Your task to perform on an android device: toggle priority inbox in the gmail app Image 0: 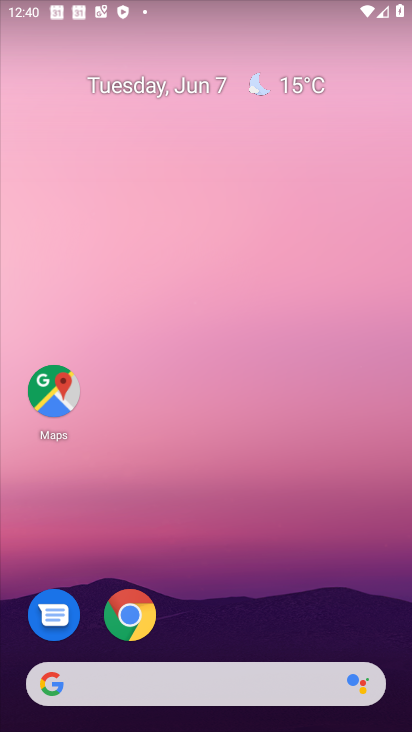
Step 0: drag from (233, 628) to (167, 104)
Your task to perform on an android device: toggle priority inbox in the gmail app Image 1: 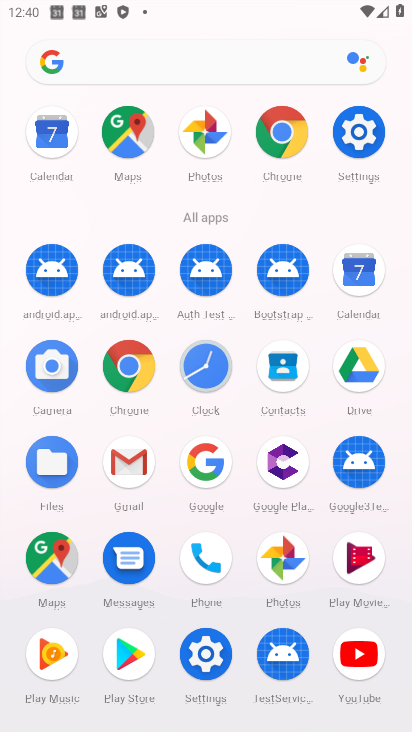
Step 1: click (122, 452)
Your task to perform on an android device: toggle priority inbox in the gmail app Image 2: 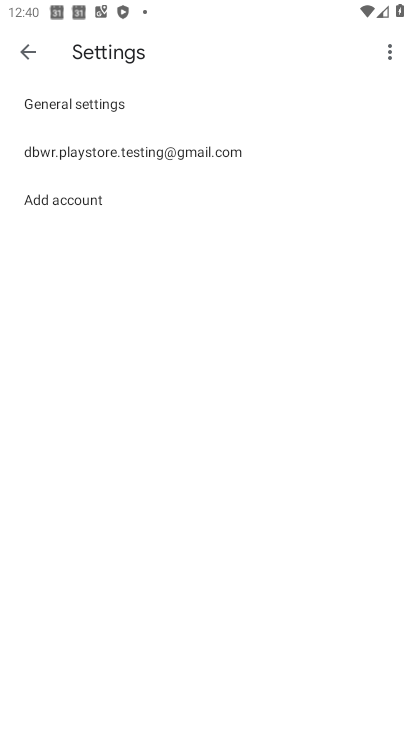
Step 2: click (122, 147)
Your task to perform on an android device: toggle priority inbox in the gmail app Image 3: 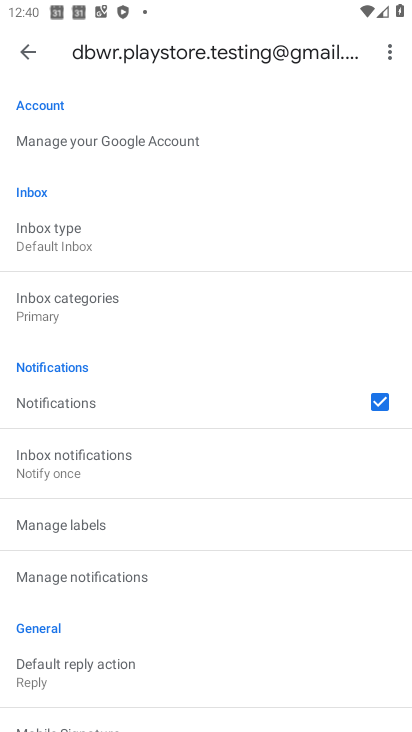
Step 3: click (67, 244)
Your task to perform on an android device: toggle priority inbox in the gmail app Image 4: 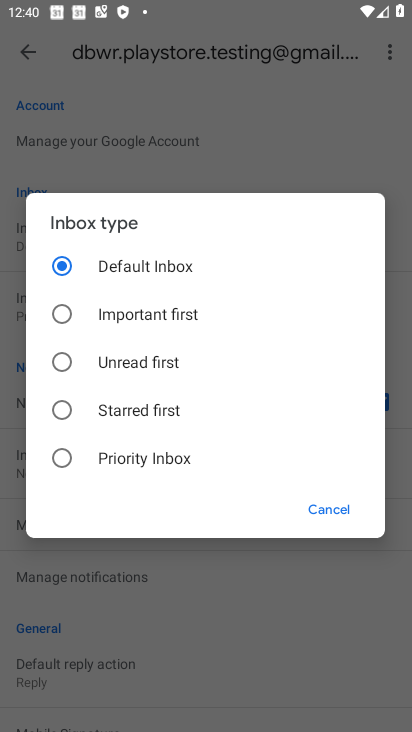
Step 4: click (51, 479)
Your task to perform on an android device: toggle priority inbox in the gmail app Image 5: 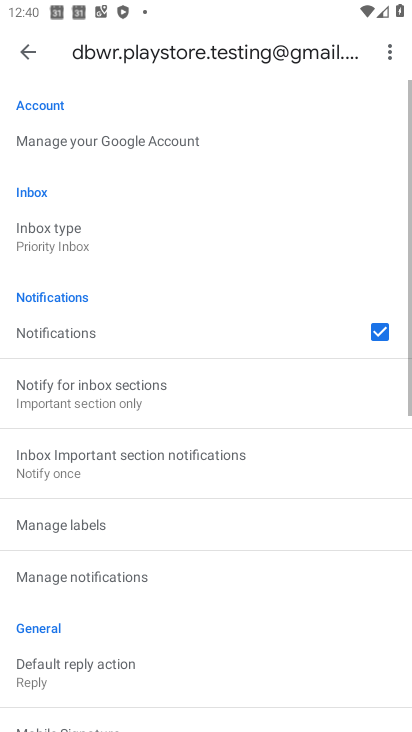
Step 5: task complete